Your task to perform on an android device: Open settings Image 0: 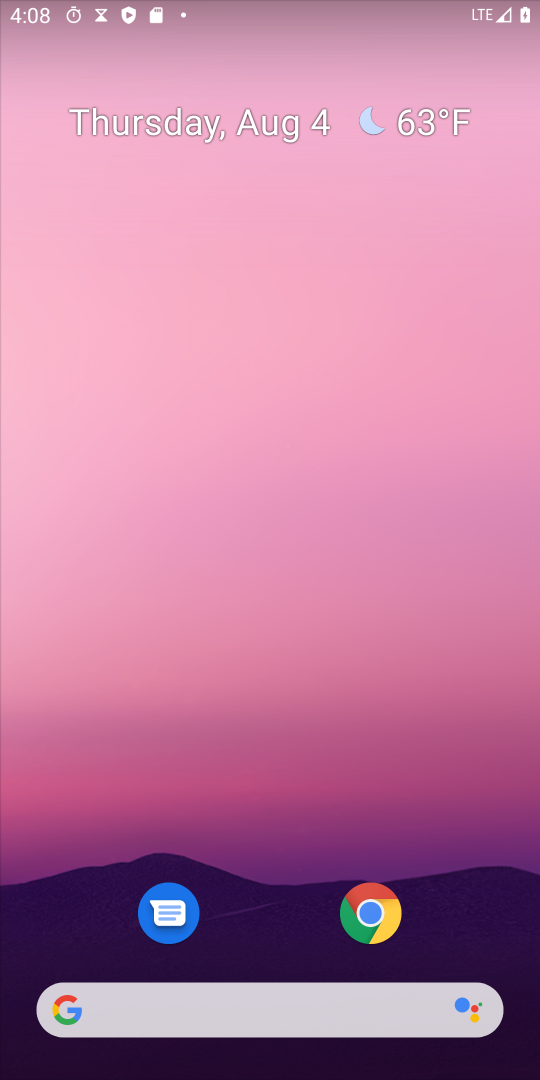
Step 0: drag from (358, 955) to (384, 12)
Your task to perform on an android device: Open settings Image 1: 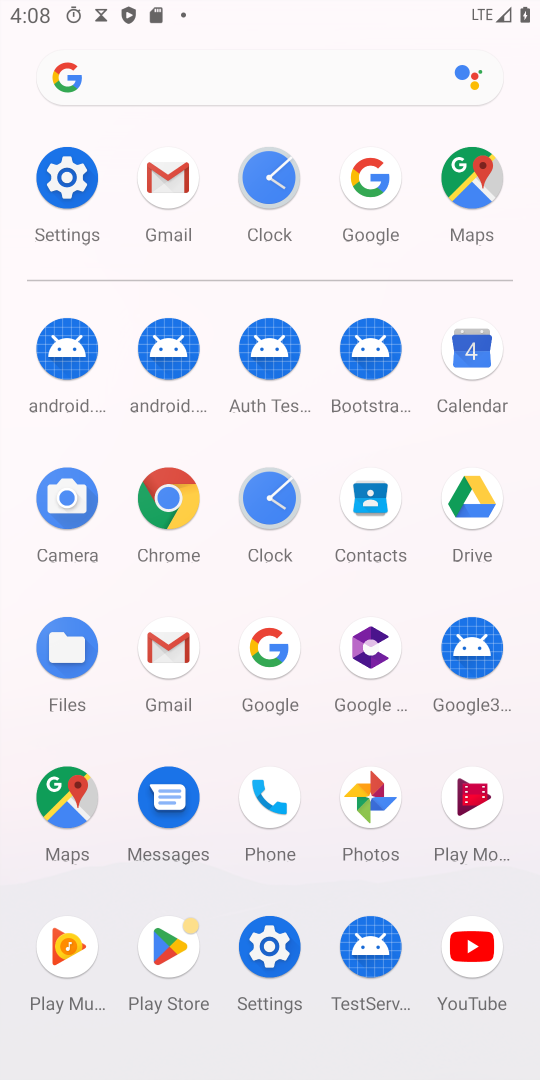
Step 1: click (263, 956)
Your task to perform on an android device: Open settings Image 2: 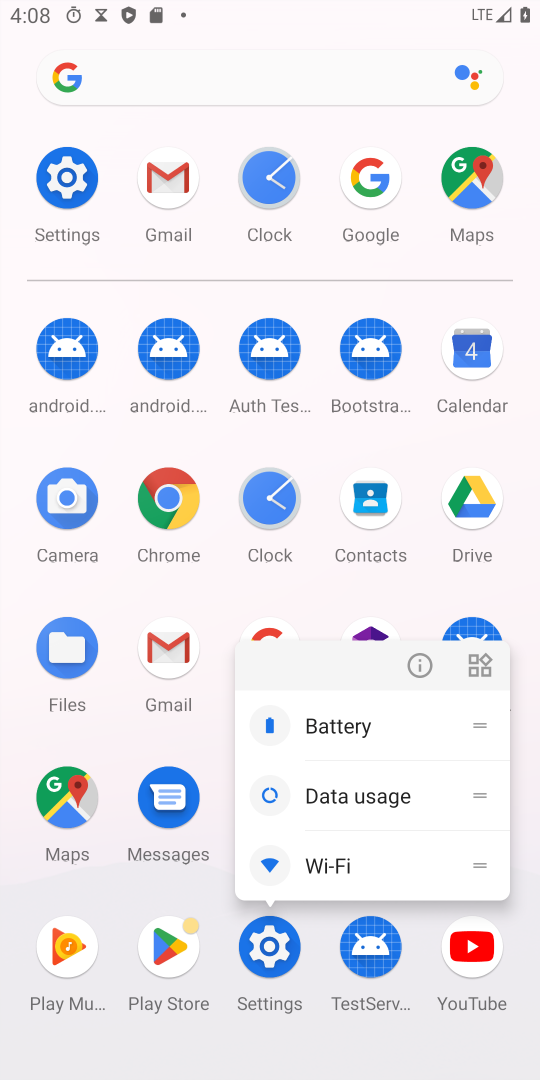
Step 2: click (274, 946)
Your task to perform on an android device: Open settings Image 3: 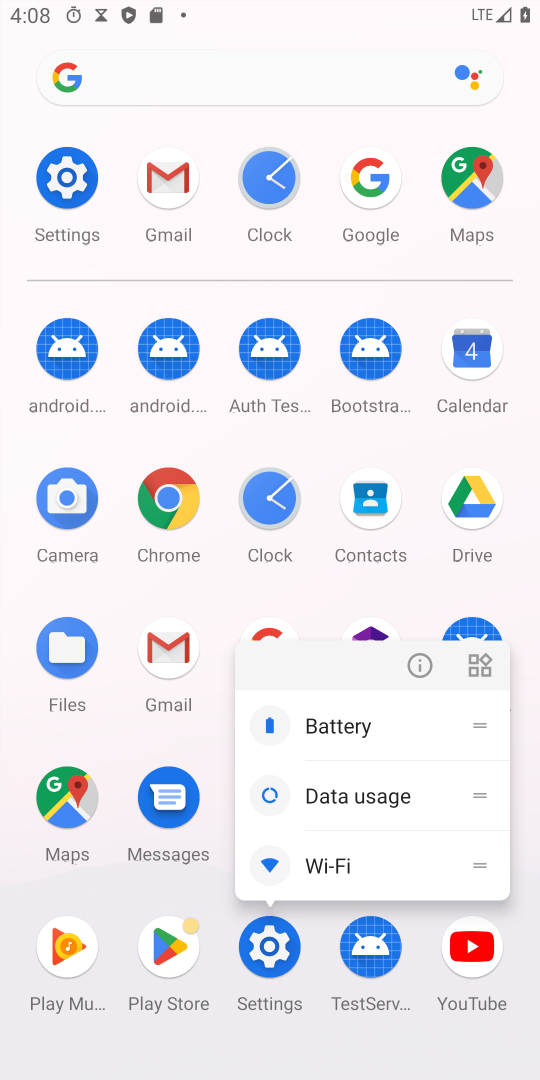
Step 3: click (274, 946)
Your task to perform on an android device: Open settings Image 4: 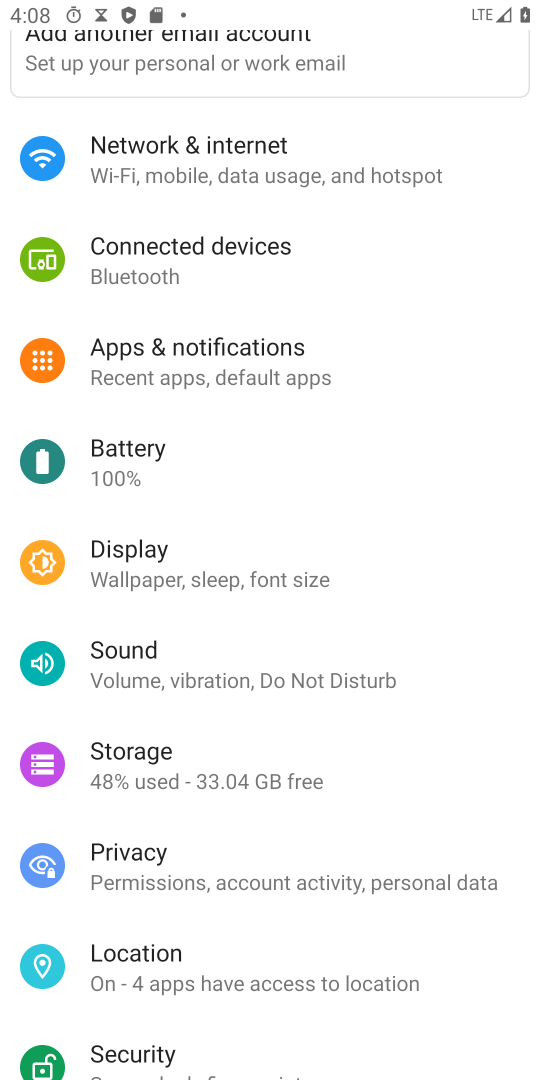
Step 4: task complete